Your task to perform on an android device: Add usb-c to usb-a to the cart on costco, then select checkout. Image 0: 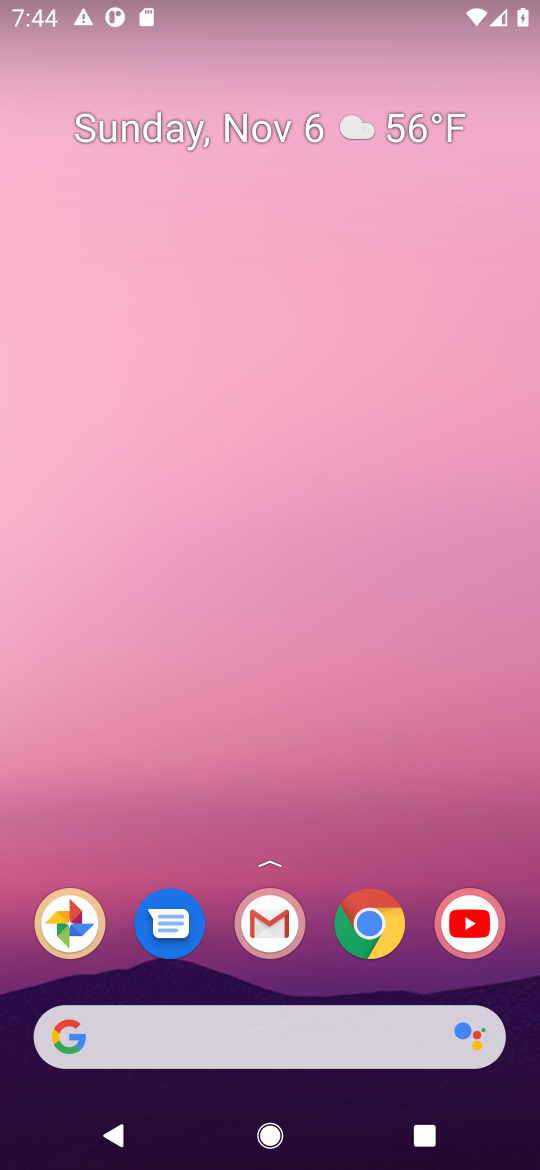
Step 0: click (370, 942)
Your task to perform on an android device: Add usb-c to usb-a to the cart on costco, then select checkout. Image 1: 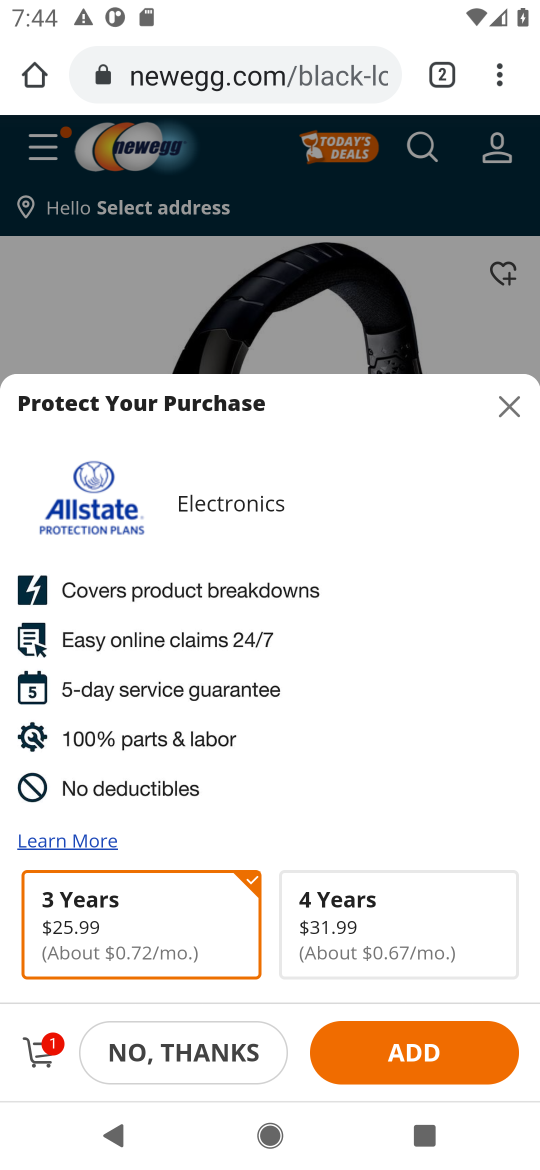
Step 1: click (239, 61)
Your task to perform on an android device: Add usb-c to usb-a to the cart on costco, then select checkout. Image 2: 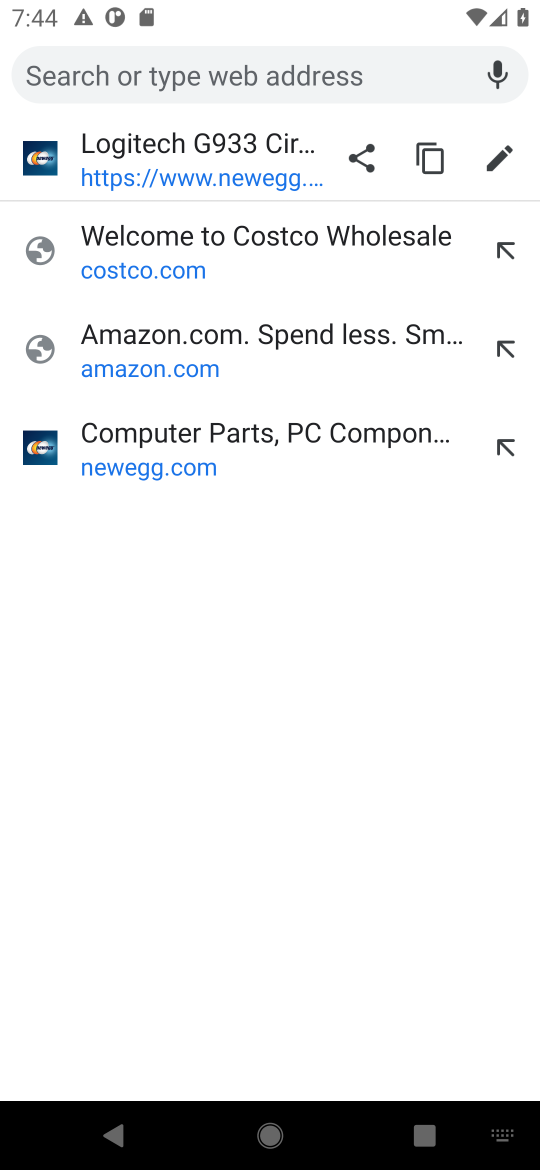
Step 2: click (145, 273)
Your task to perform on an android device: Add usb-c to usb-a to the cart on costco, then select checkout. Image 3: 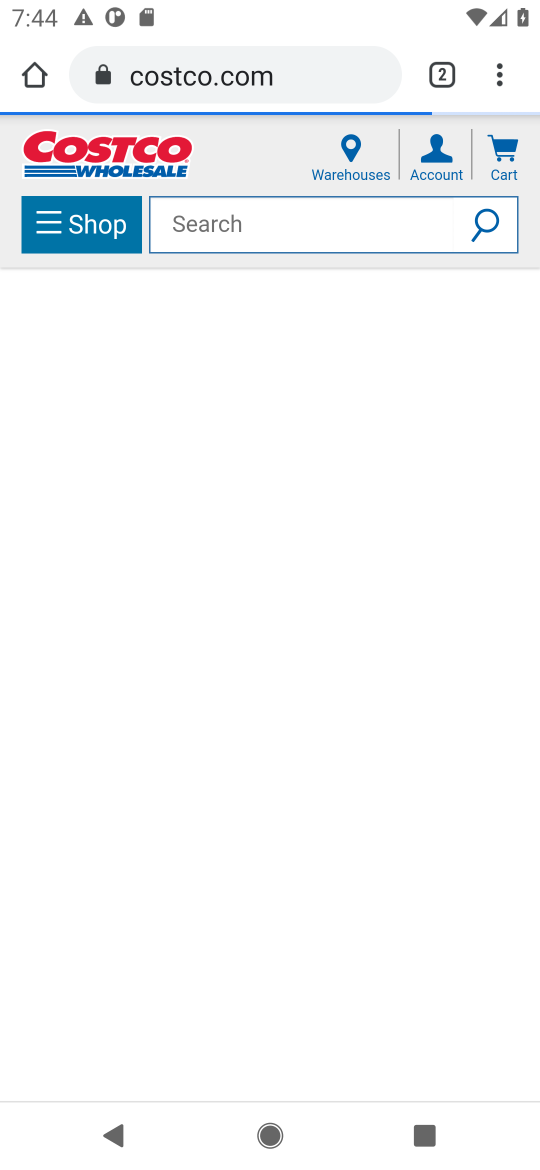
Step 3: click (186, 234)
Your task to perform on an android device: Add usb-c to usb-a to the cart on costco, then select checkout. Image 4: 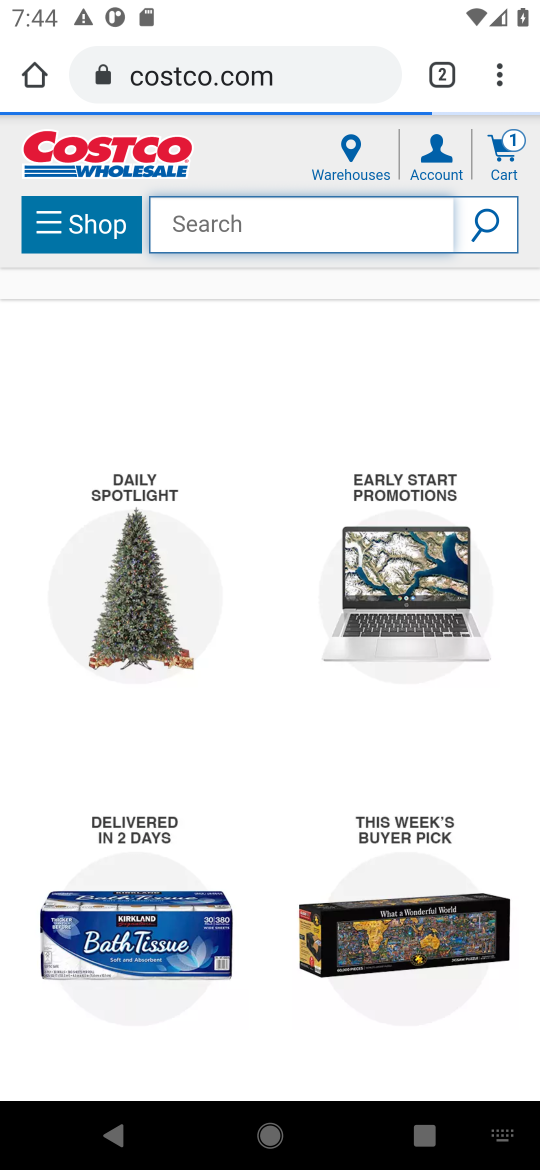
Step 4: type "usb-c to usb-a "
Your task to perform on an android device: Add usb-c to usb-a to the cart on costco, then select checkout. Image 5: 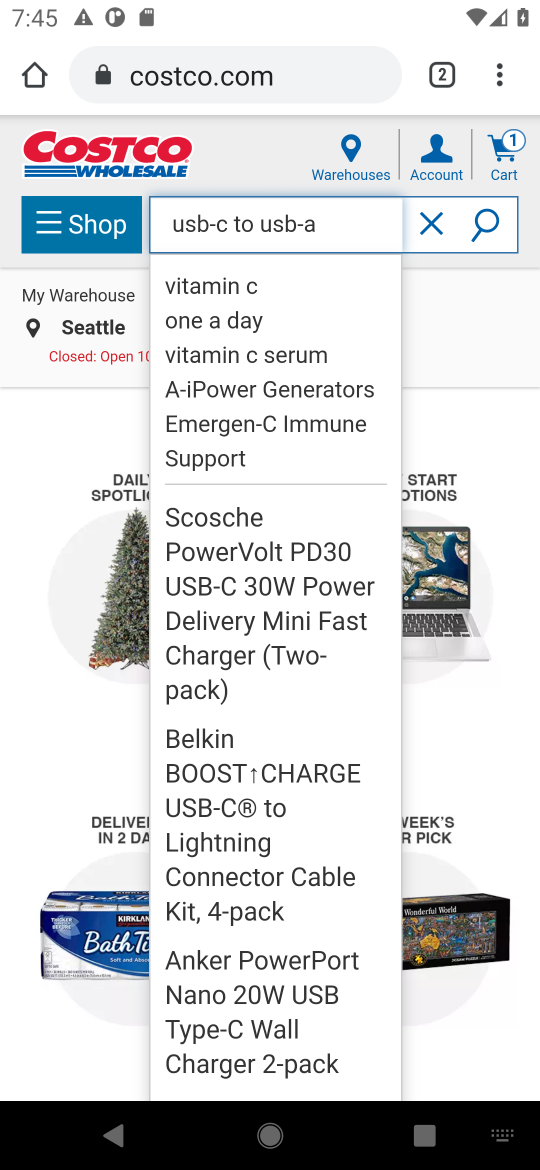
Step 5: click (479, 225)
Your task to perform on an android device: Add usb-c to usb-a to the cart on costco, then select checkout. Image 6: 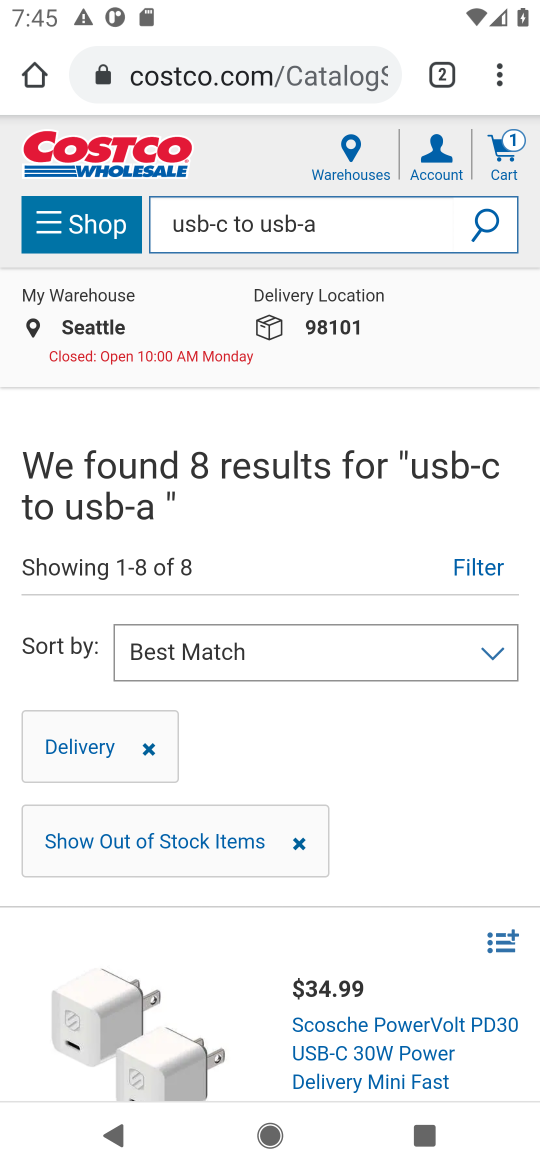
Step 6: task complete